Your task to perform on an android device: toggle wifi Image 0: 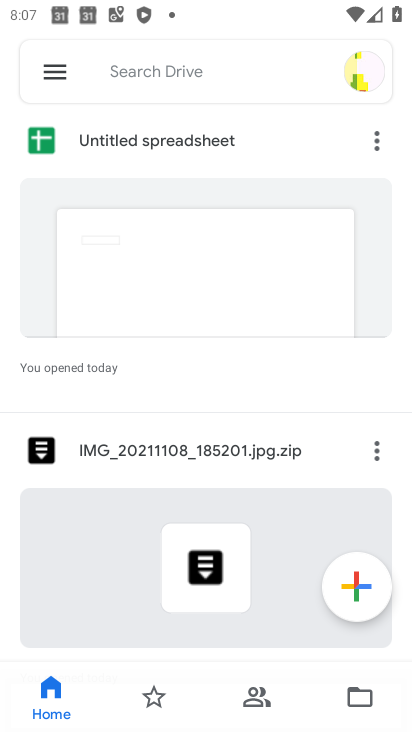
Step 0: press home button
Your task to perform on an android device: toggle wifi Image 1: 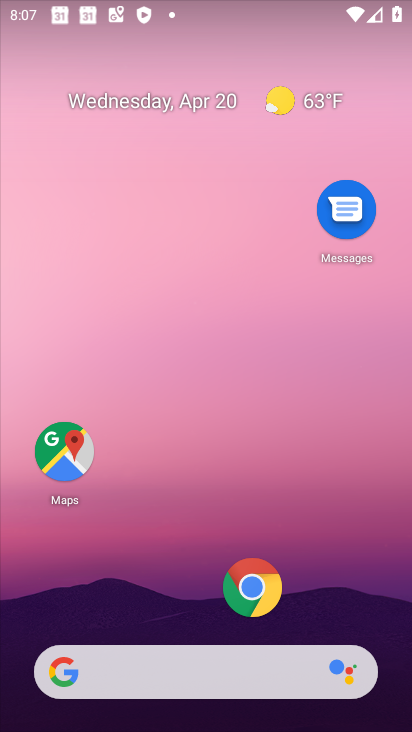
Step 1: drag from (153, 666) to (283, 81)
Your task to perform on an android device: toggle wifi Image 2: 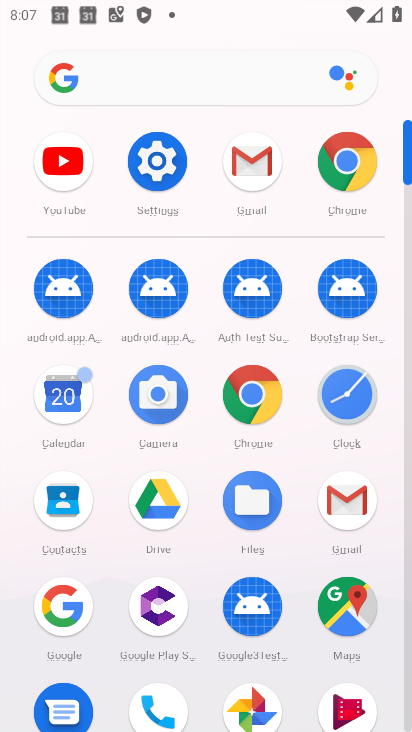
Step 2: click (162, 164)
Your task to perform on an android device: toggle wifi Image 3: 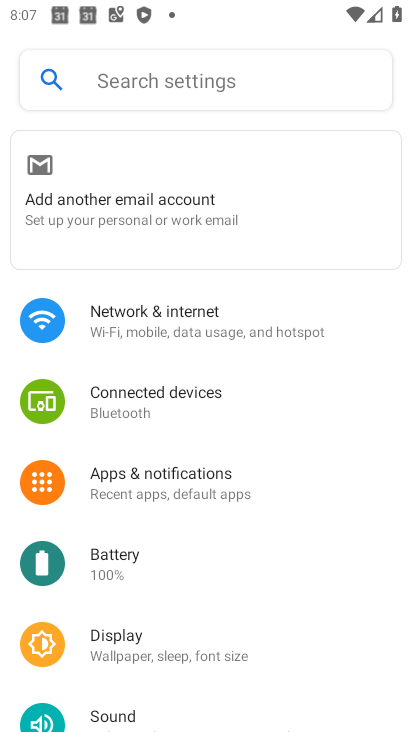
Step 3: click (177, 314)
Your task to perform on an android device: toggle wifi Image 4: 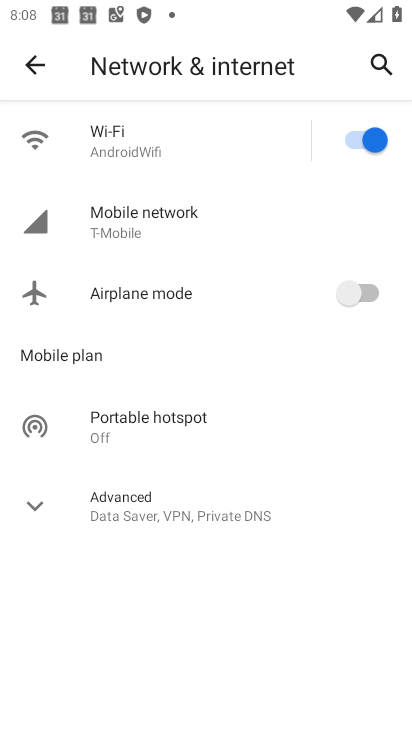
Step 4: click (358, 136)
Your task to perform on an android device: toggle wifi Image 5: 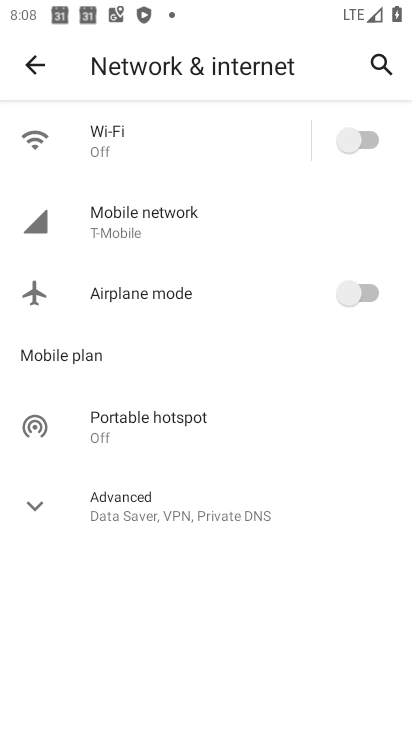
Step 5: task complete